Your task to perform on an android device: Open maps Image 0: 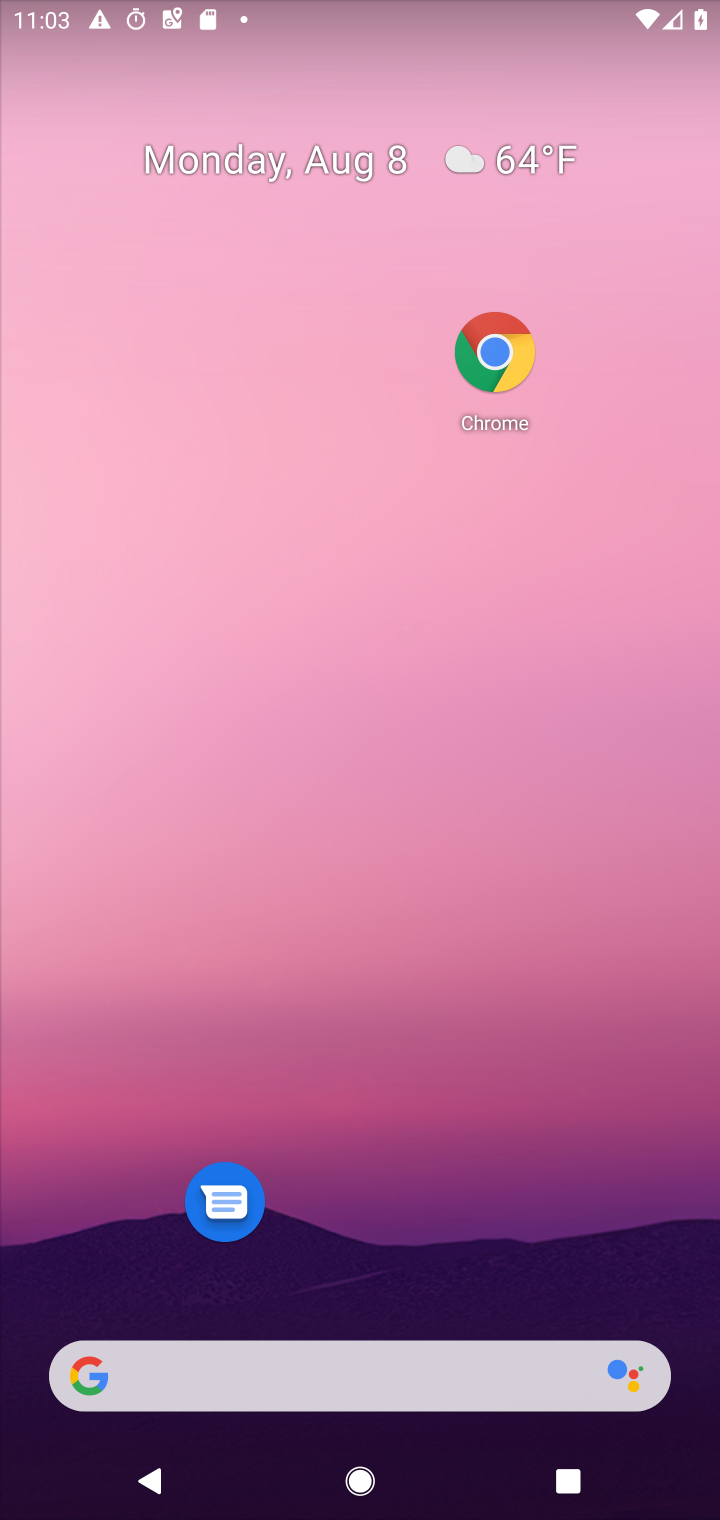
Step 0: drag from (287, 1337) to (171, 191)
Your task to perform on an android device: Open maps Image 1: 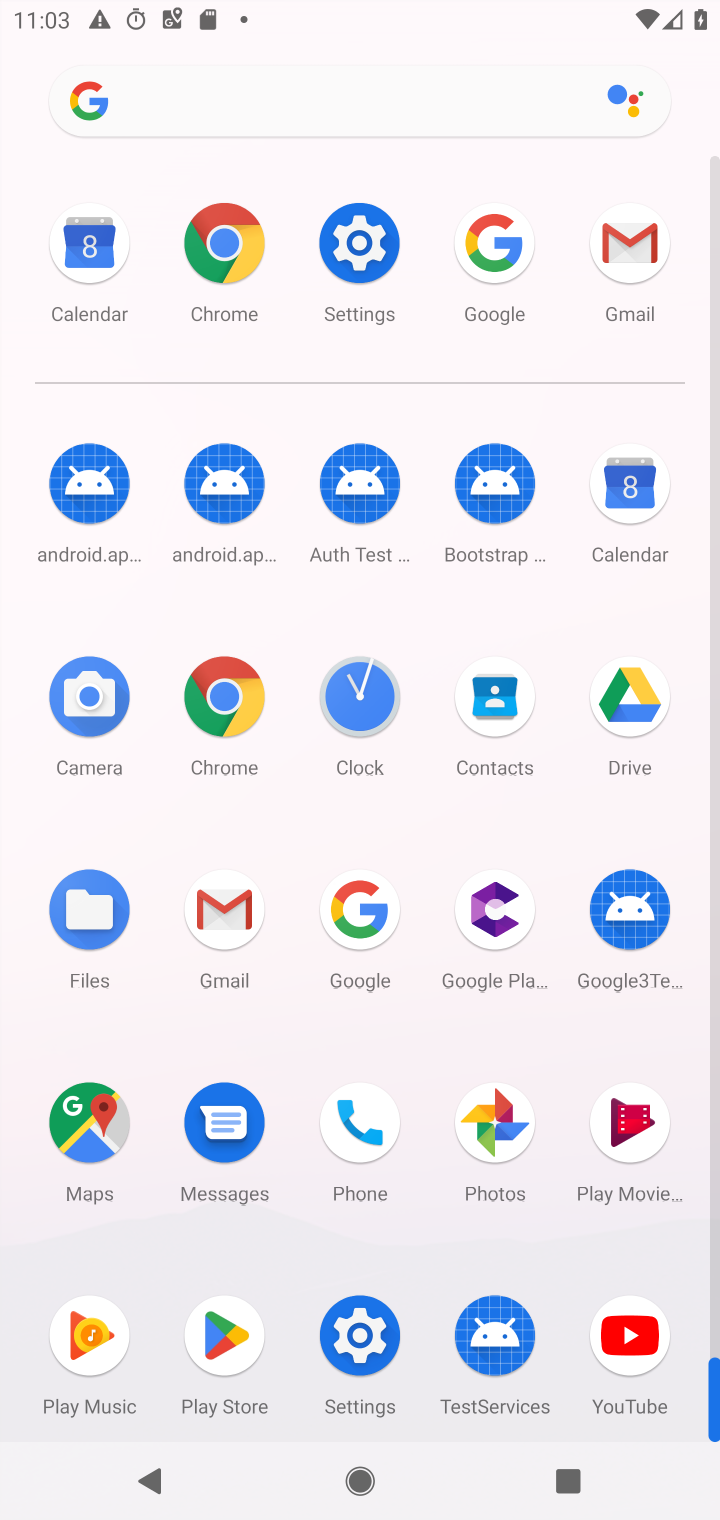
Step 1: click (113, 1141)
Your task to perform on an android device: Open maps Image 2: 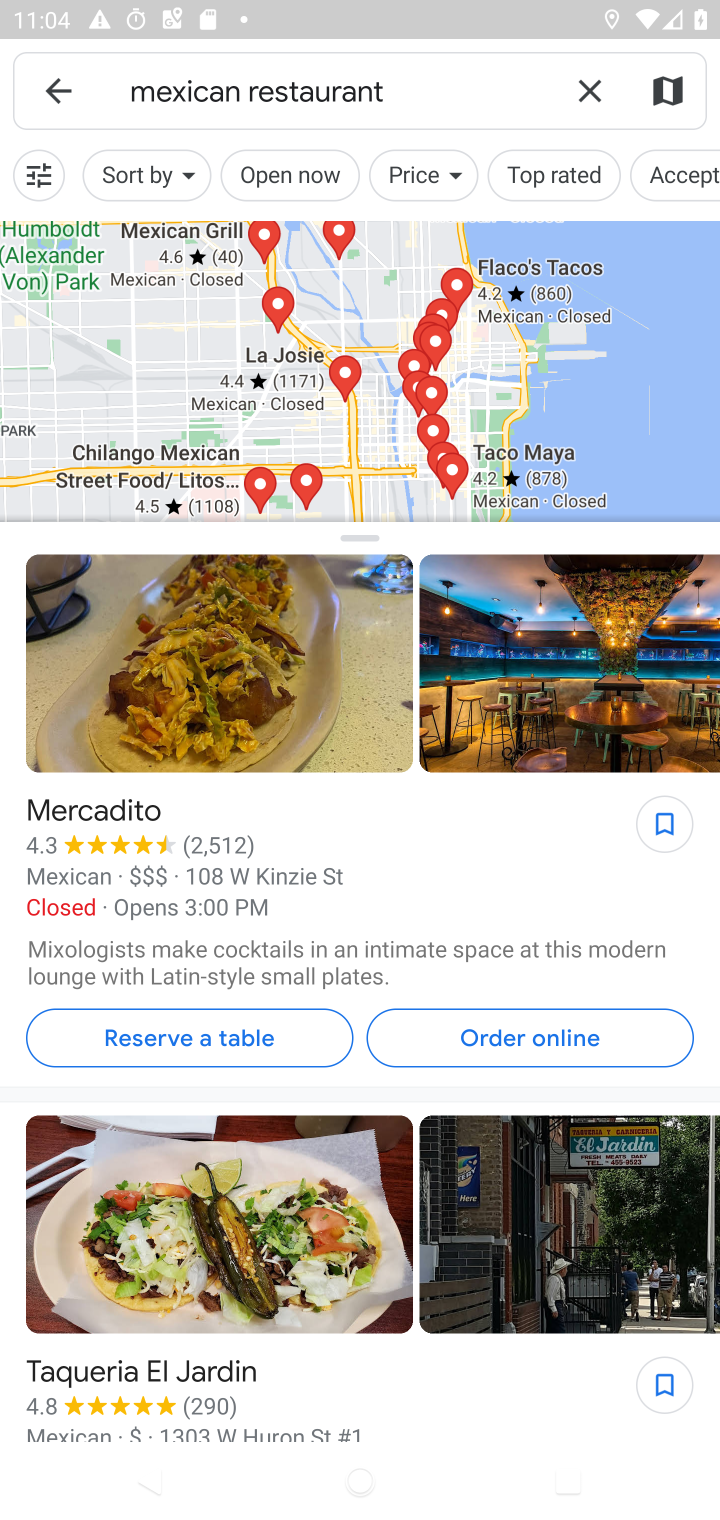
Step 2: task complete